Your task to perform on an android device: Open Amazon Image 0: 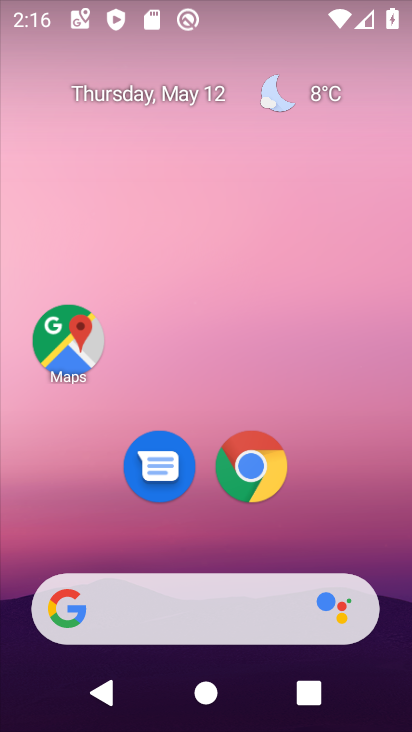
Step 0: click (241, 474)
Your task to perform on an android device: Open Amazon Image 1: 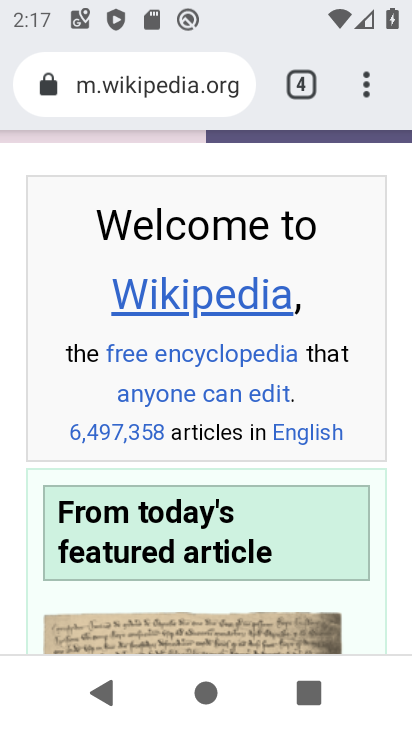
Step 1: click (296, 96)
Your task to perform on an android device: Open Amazon Image 2: 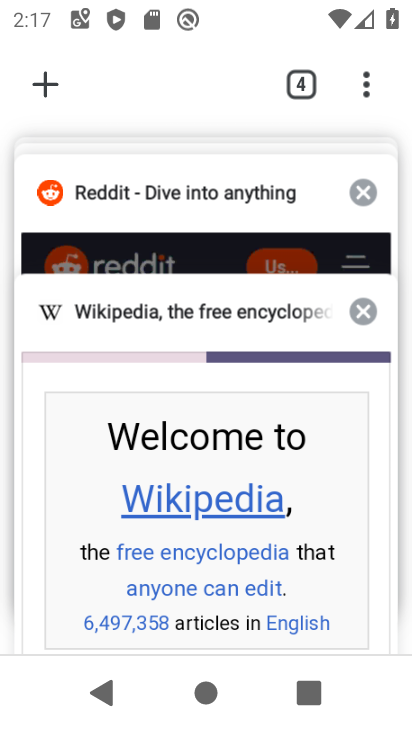
Step 2: click (40, 88)
Your task to perform on an android device: Open Amazon Image 3: 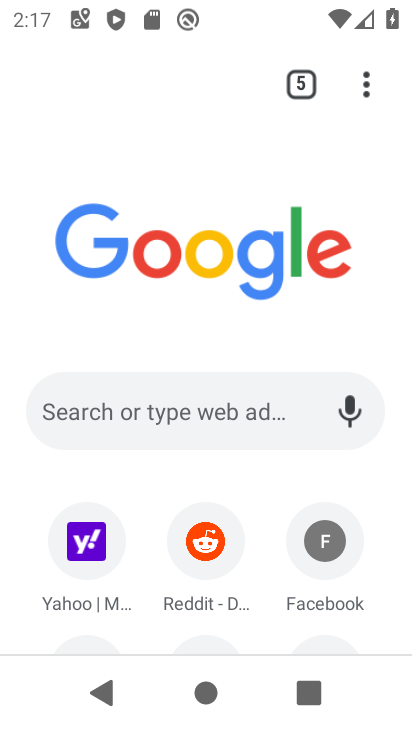
Step 3: drag from (224, 572) to (214, 249)
Your task to perform on an android device: Open Amazon Image 4: 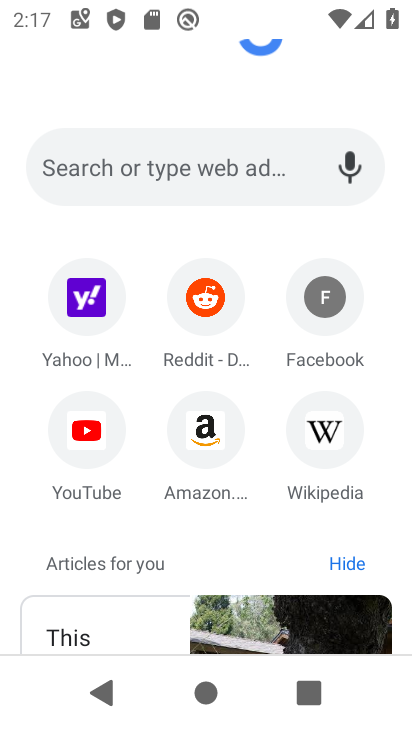
Step 4: click (209, 433)
Your task to perform on an android device: Open Amazon Image 5: 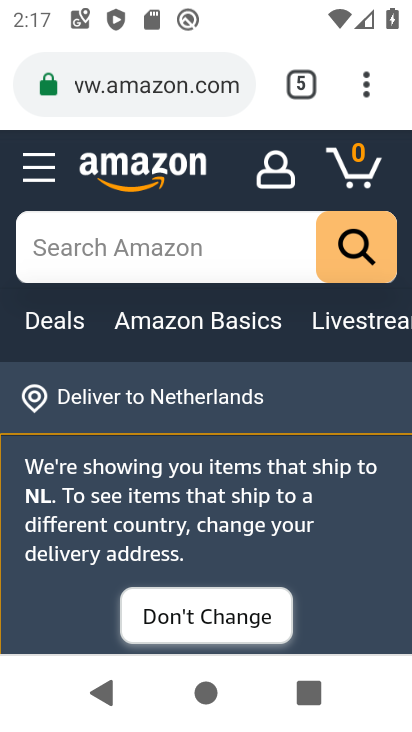
Step 5: task complete